Your task to perform on an android device: toggle translation in the chrome app Image 0: 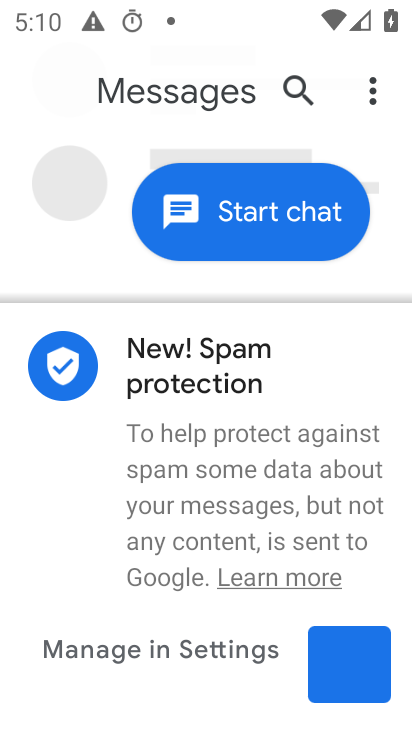
Step 0: press home button
Your task to perform on an android device: toggle translation in the chrome app Image 1: 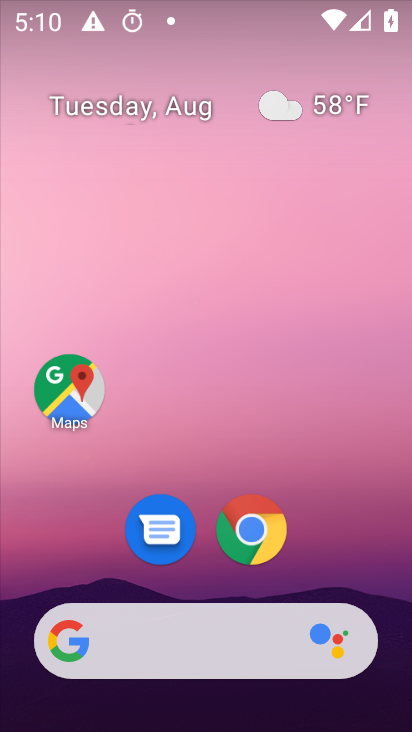
Step 1: click (241, 530)
Your task to perform on an android device: toggle translation in the chrome app Image 2: 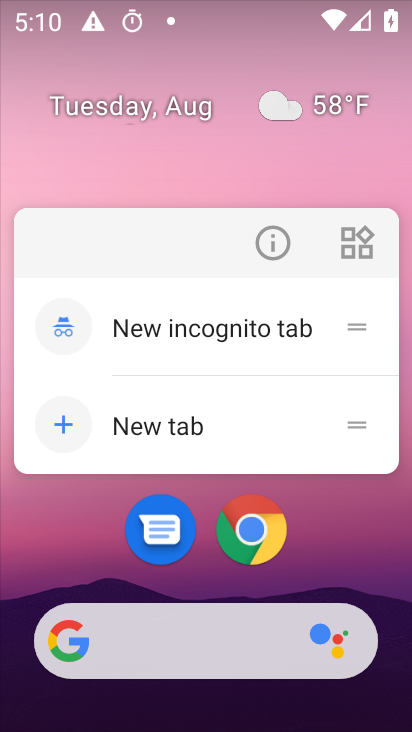
Step 2: click (241, 530)
Your task to perform on an android device: toggle translation in the chrome app Image 3: 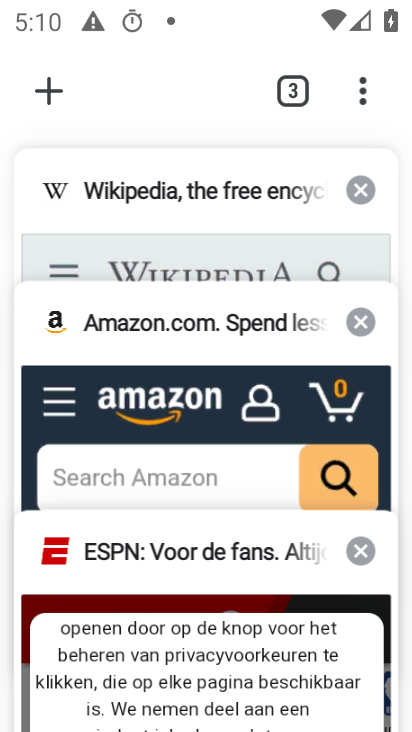
Step 3: click (366, 93)
Your task to perform on an android device: toggle translation in the chrome app Image 4: 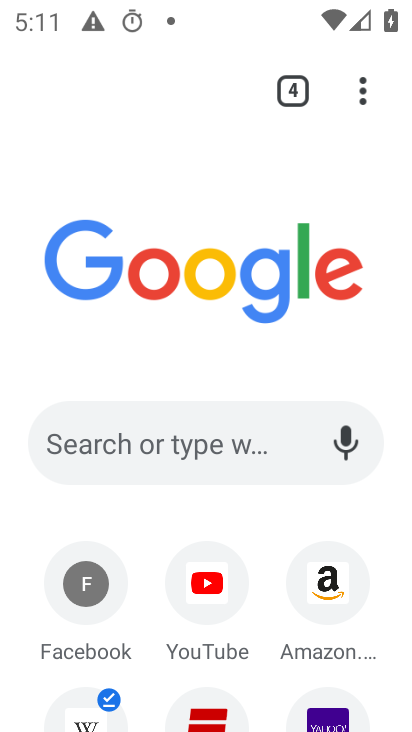
Step 4: click (366, 93)
Your task to perform on an android device: toggle translation in the chrome app Image 5: 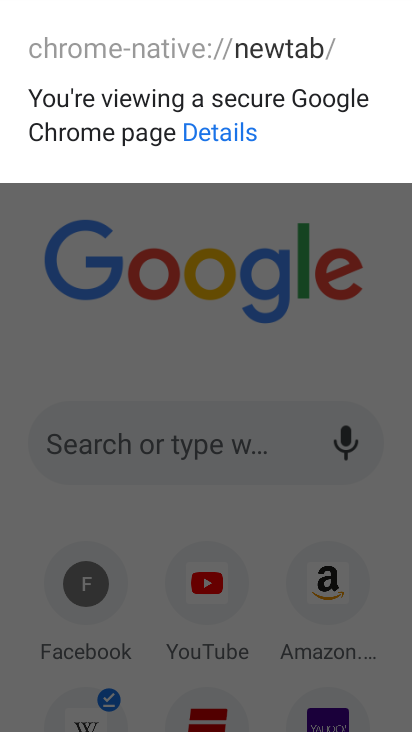
Step 5: click (341, 250)
Your task to perform on an android device: toggle translation in the chrome app Image 6: 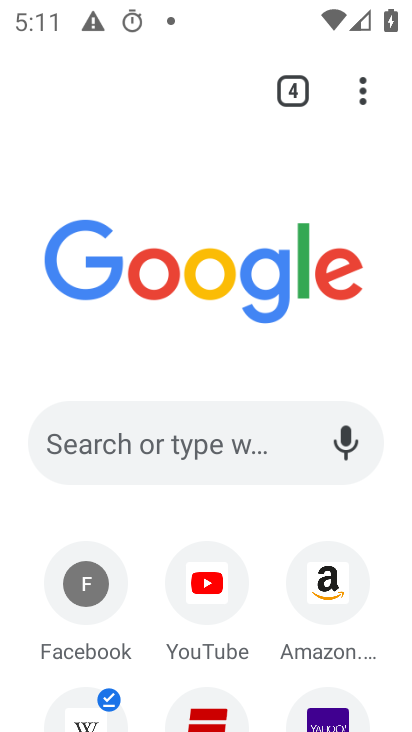
Step 6: drag from (362, 94) to (124, 555)
Your task to perform on an android device: toggle translation in the chrome app Image 7: 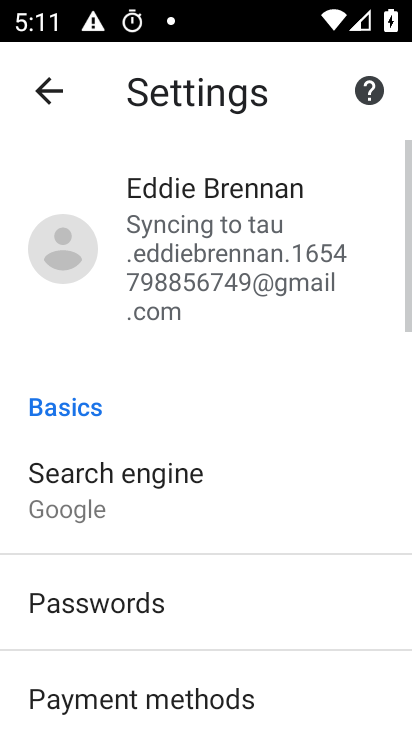
Step 7: drag from (182, 604) to (162, 211)
Your task to perform on an android device: toggle translation in the chrome app Image 8: 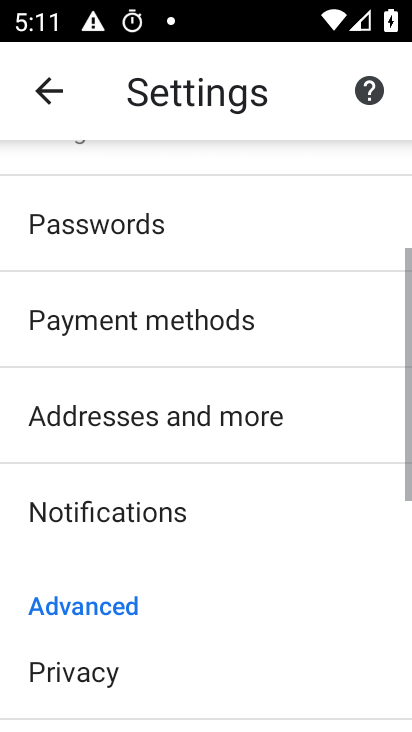
Step 8: drag from (198, 532) to (191, 236)
Your task to perform on an android device: toggle translation in the chrome app Image 9: 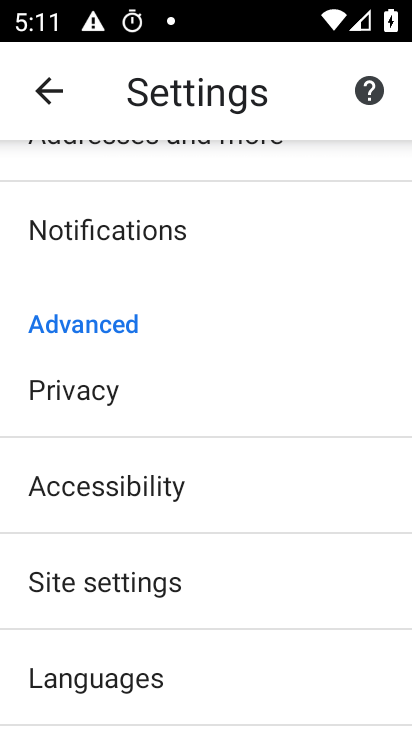
Step 9: click (156, 691)
Your task to perform on an android device: toggle translation in the chrome app Image 10: 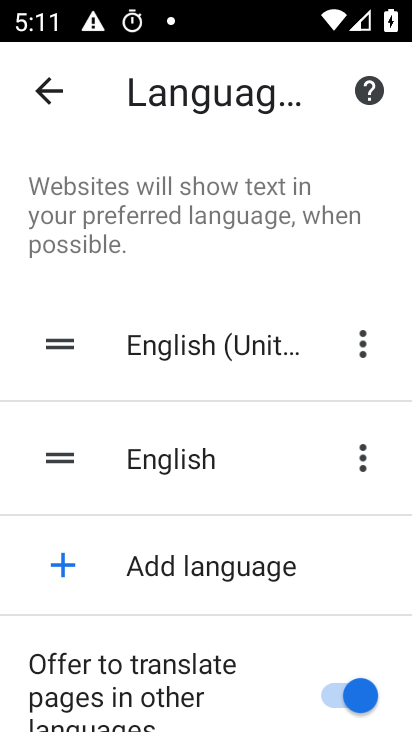
Step 10: click (335, 690)
Your task to perform on an android device: toggle translation in the chrome app Image 11: 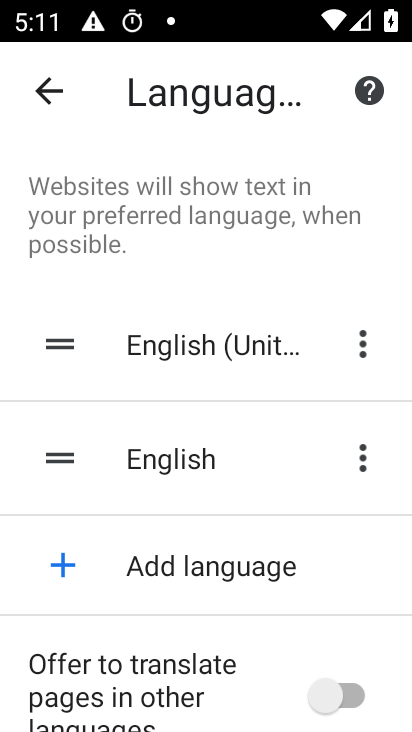
Step 11: task complete